Your task to perform on an android device: create a new album in the google photos Image 0: 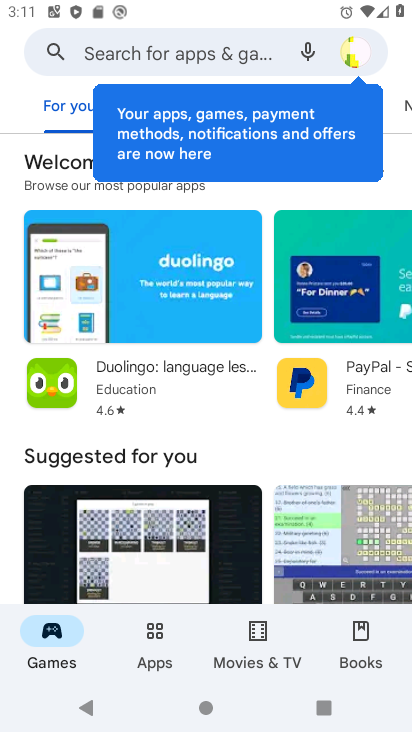
Step 0: press home button
Your task to perform on an android device: create a new album in the google photos Image 1: 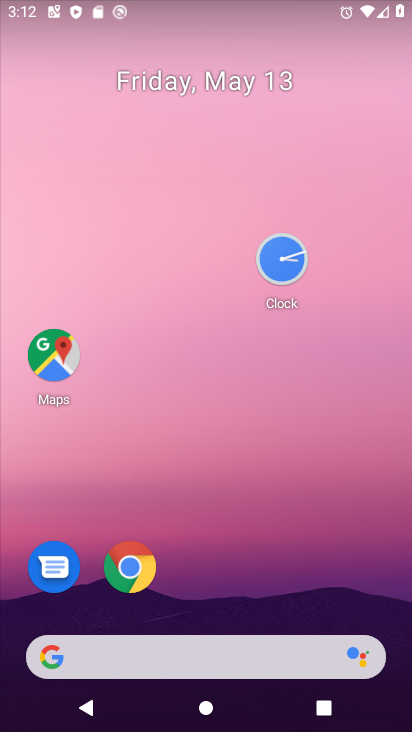
Step 1: drag from (265, 590) to (197, 181)
Your task to perform on an android device: create a new album in the google photos Image 2: 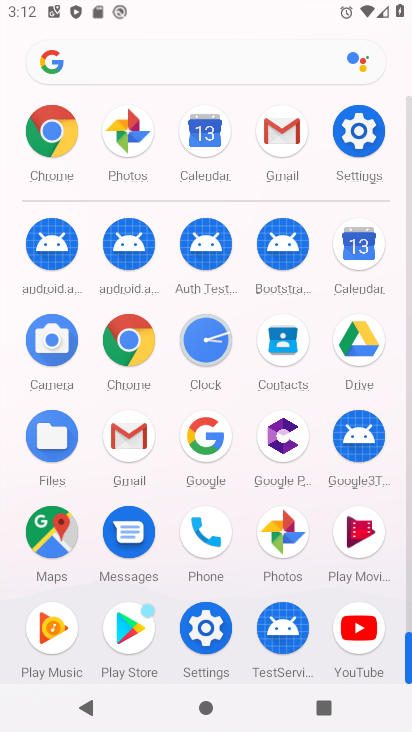
Step 2: click (127, 172)
Your task to perform on an android device: create a new album in the google photos Image 3: 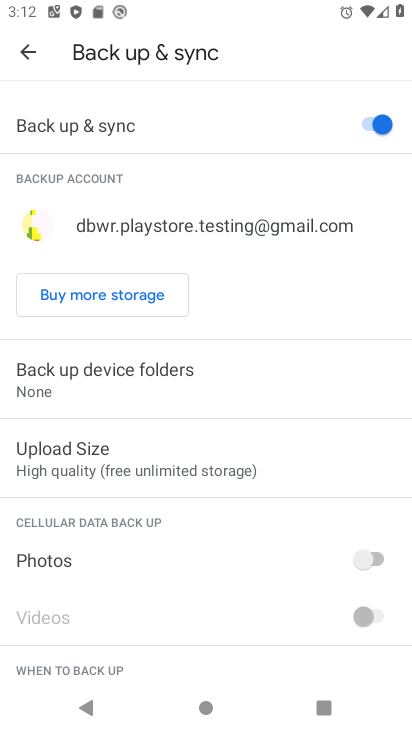
Step 3: click (28, 61)
Your task to perform on an android device: create a new album in the google photos Image 4: 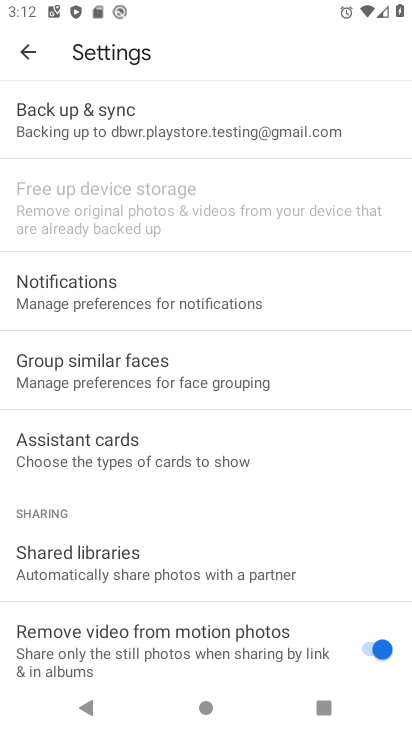
Step 4: click (28, 61)
Your task to perform on an android device: create a new album in the google photos Image 5: 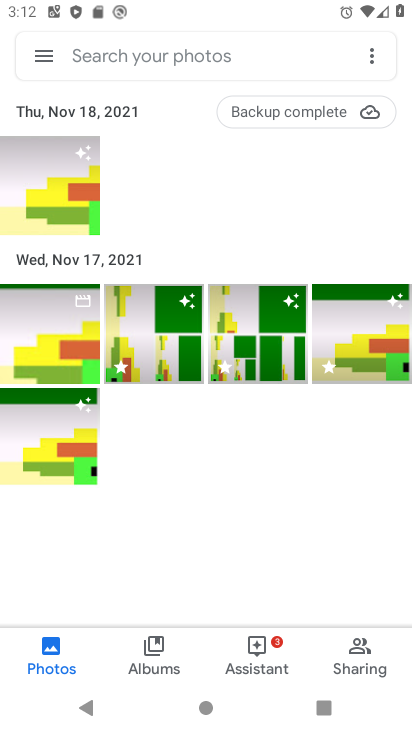
Step 5: click (28, 61)
Your task to perform on an android device: create a new album in the google photos Image 6: 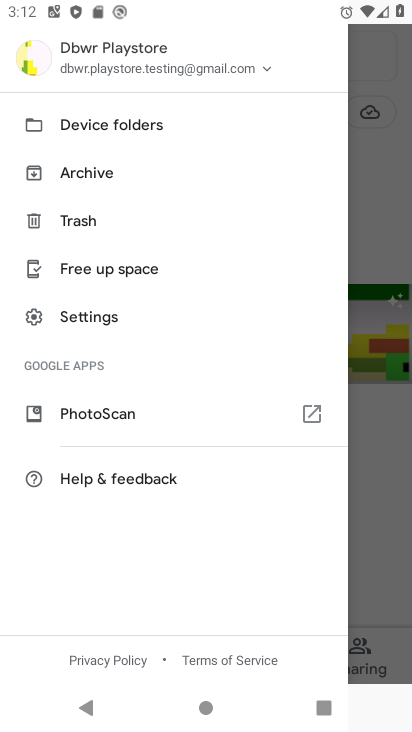
Step 6: click (385, 263)
Your task to perform on an android device: create a new album in the google photos Image 7: 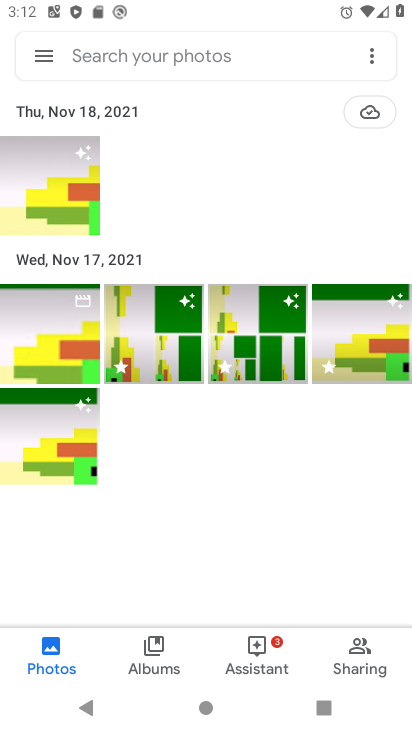
Step 7: click (163, 658)
Your task to perform on an android device: create a new album in the google photos Image 8: 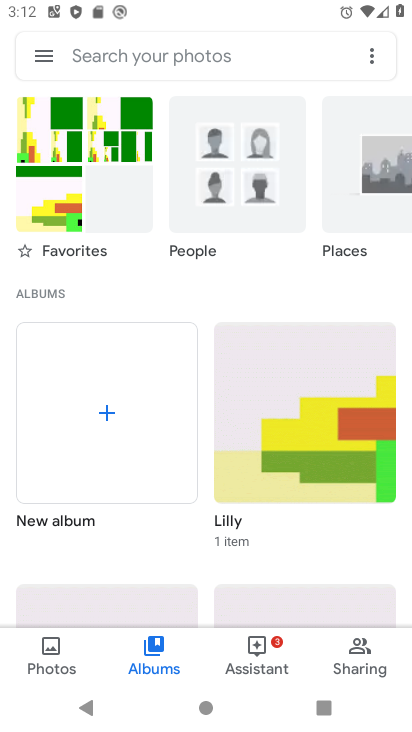
Step 8: click (132, 381)
Your task to perform on an android device: create a new album in the google photos Image 9: 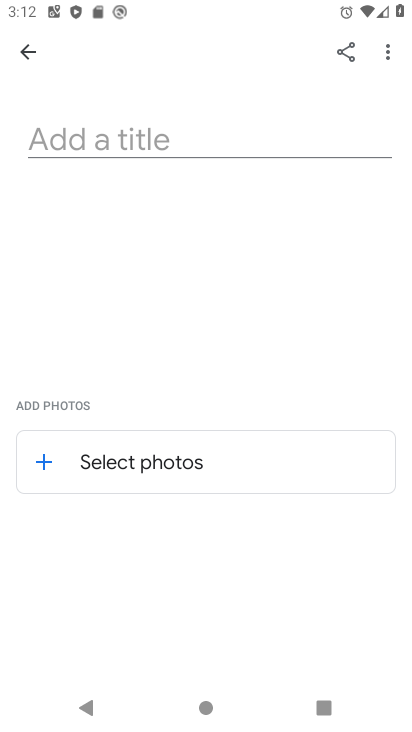
Step 9: click (232, 137)
Your task to perform on an android device: create a new album in the google photos Image 10: 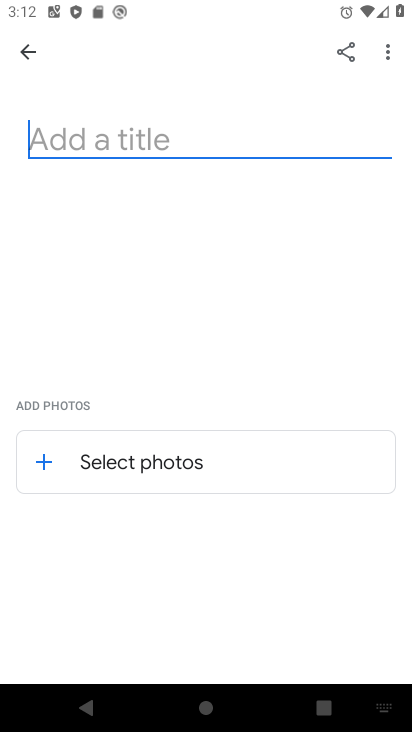
Step 10: type "qdwd"
Your task to perform on an android device: create a new album in the google photos Image 11: 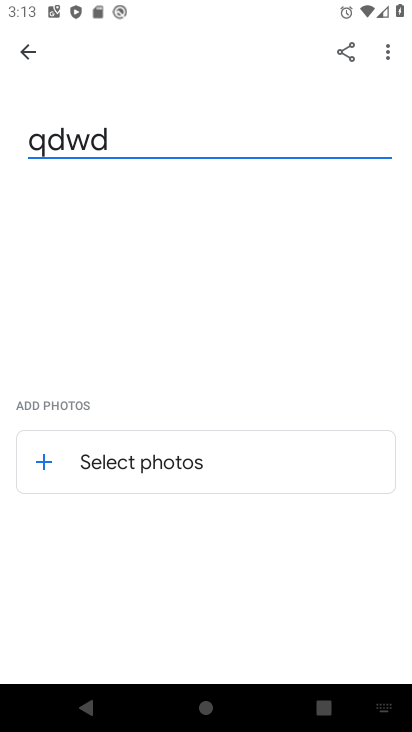
Step 11: click (294, 444)
Your task to perform on an android device: create a new album in the google photos Image 12: 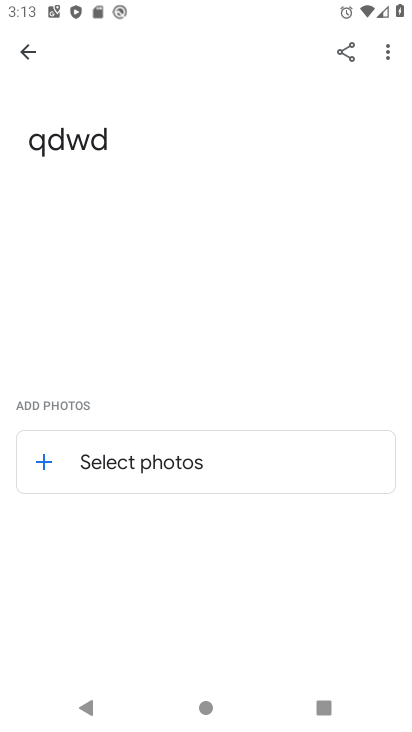
Step 12: click (105, 473)
Your task to perform on an android device: create a new album in the google photos Image 13: 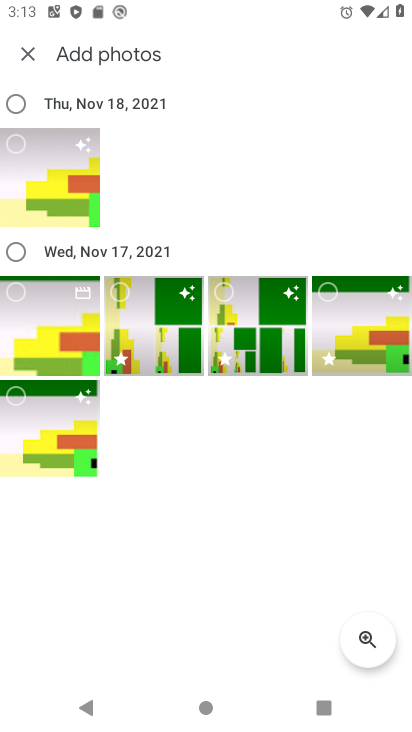
Step 13: click (15, 101)
Your task to perform on an android device: create a new album in the google photos Image 14: 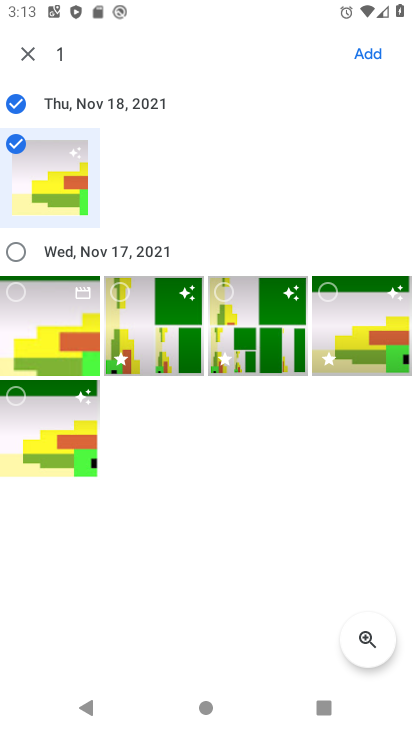
Step 14: click (25, 258)
Your task to perform on an android device: create a new album in the google photos Image 15: 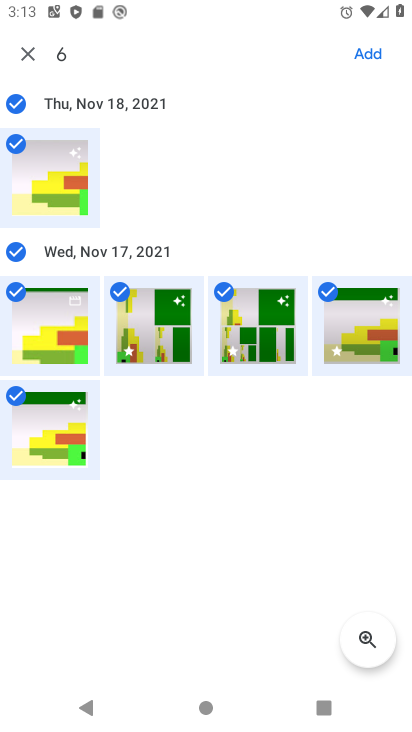
Step 15: task complete